Your task to perform on an android device: When is my next appointment? Image 0: 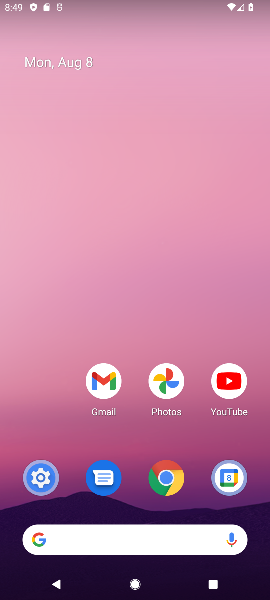
Step 0: press home button
Your task to perform on an android device: When is my next appointment? Image 1: 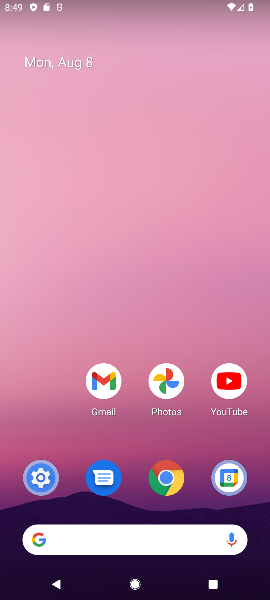
Step 1: drag from (123, 546) to (199, 203)
Your task to perform on an android device: When is my next appointment? Image 2: 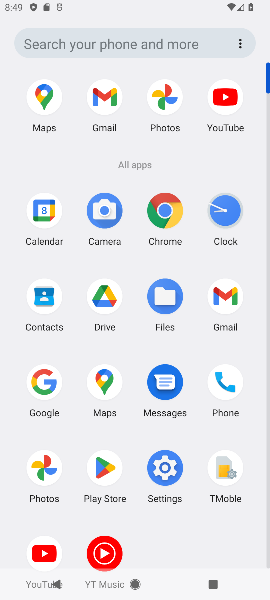
Step 2: click (48, 206)
Your task to perform on an android device: When is my next appointment? Image 3: 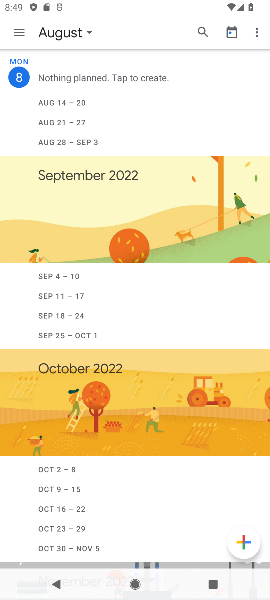
Step 3: task complete